Your task to perform on an android device: set the stopwatch Image 0: 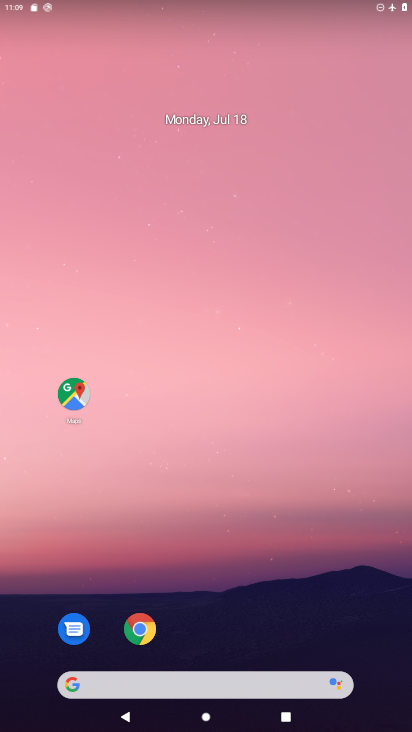
Step 0: drag from (242, 617) to (245, 76)
Your task to perform on an android device: set the stopwatch Image 1: 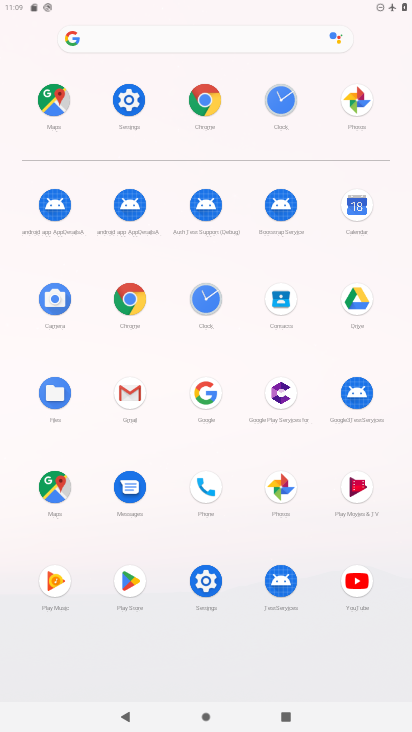
Step 1: click (208, 291)
Your task to perform on an android device: set the stopwatch Image 2: 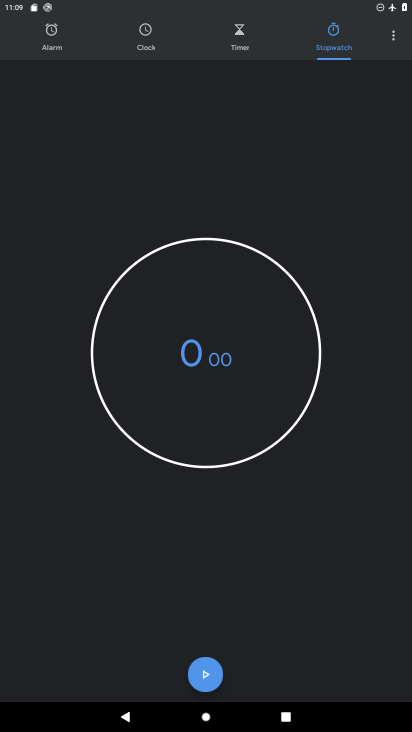
Step 2: click (210, 671)
Your task to perform on an android device: set the stopwatch Image 3: 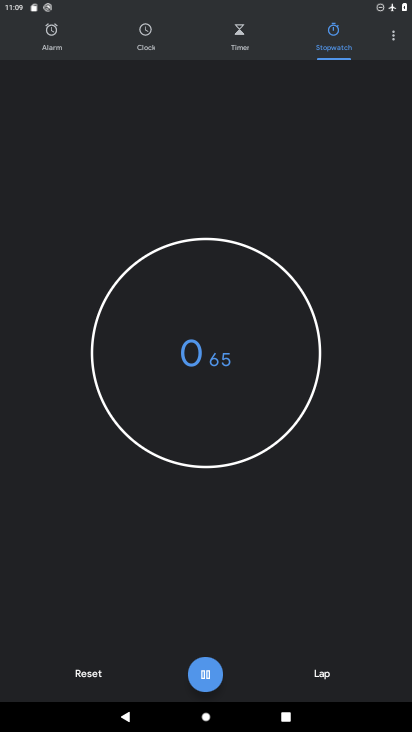
Step 3: click (210, 670)
Your task to perform on an android device: set the stopwatch Image 4: 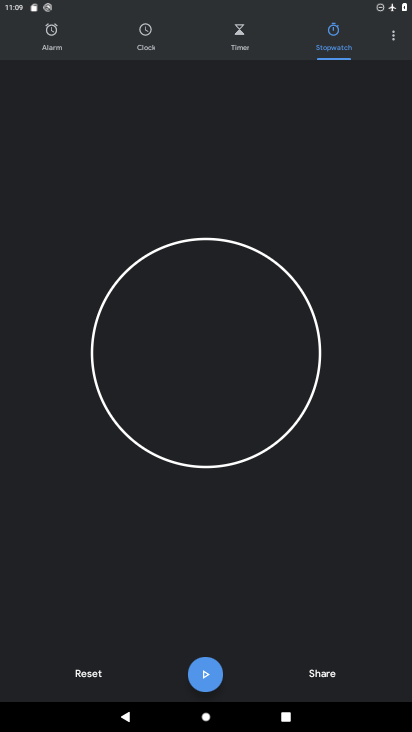
Step 4: task complete